Your task to perform on an android device: Open Google Chrome and click the shortcut for Amazon.com Image 0: 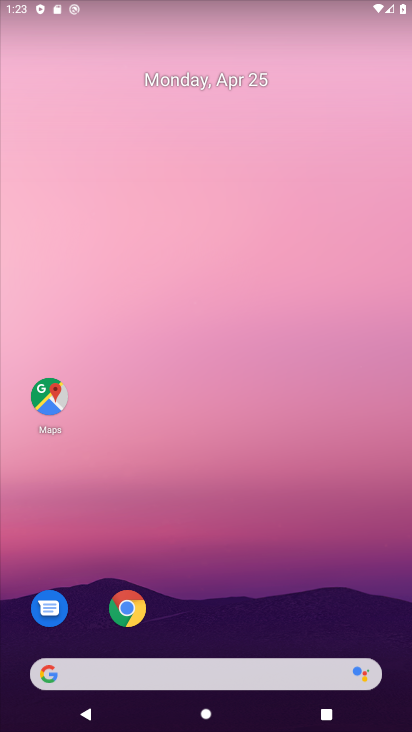
Step 0: drag from (347, 498) to (341, 46)
Your task to perform on an android device: Open Google Chrome and click the shortcut for Amazon.com Image 1: 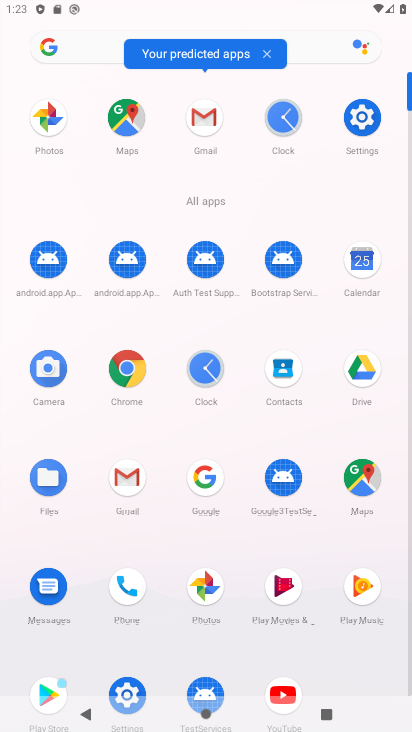
Step 1: click (140, 383)
Your task to perform on an android device: Open Google Chrome and click the shortcut for Amazon.com Image 2: 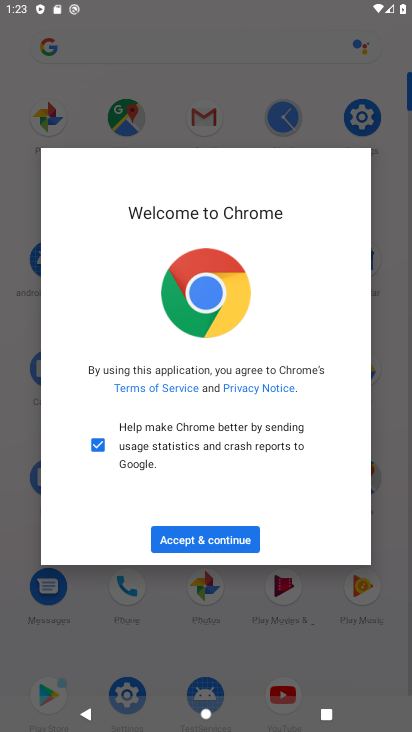
Step 2: click (197, 544)
Your task to perform on an android device: Open Google Chrome and click the shortcut for Amazon.com Image 3: 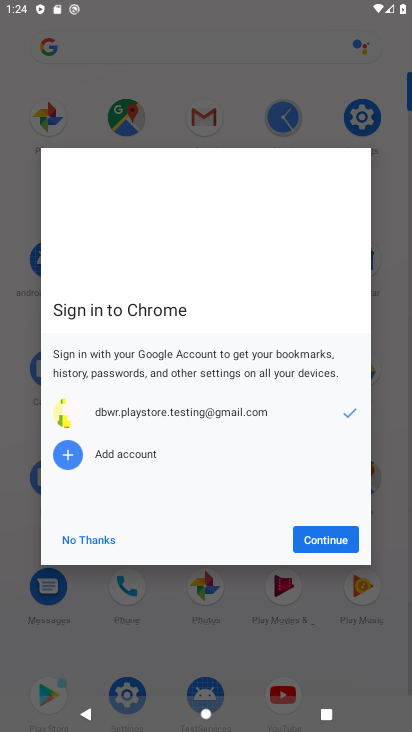
Step 3: click (323, 534)
Your task to perform on an android device: Open Google Chrome and click the shortcut for Amazon.com Image 4: 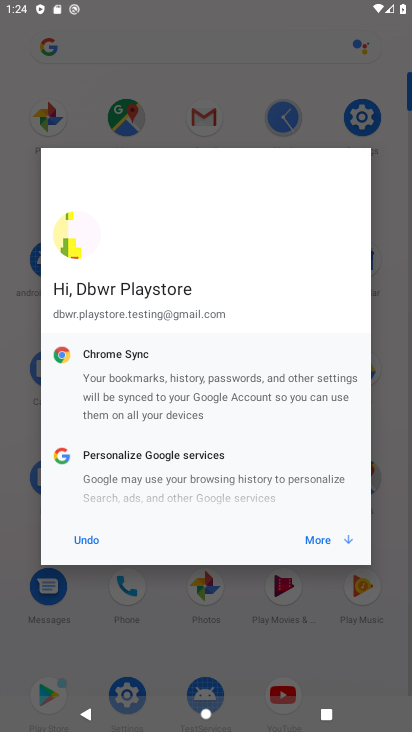
Step 4: click (315, 535)
Your task to perform on an android device: Open Google Chrome and click the shortcut for Amazon.com Image 5: 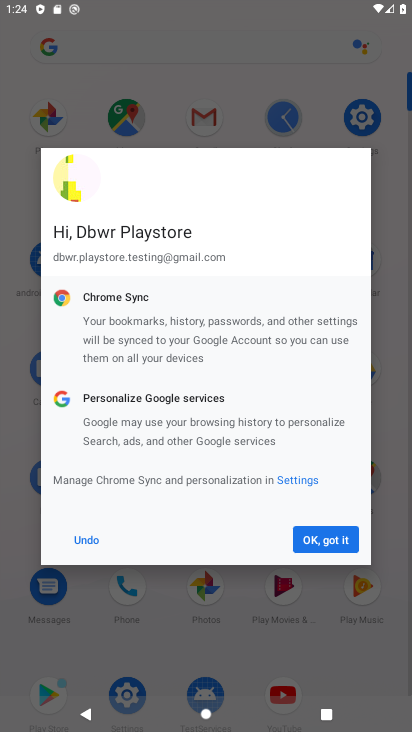
Step 5: click (315, 535)
Your task to perform on an android device: Open Google Chrome and click the shortcut for Amazon.com Image 6: 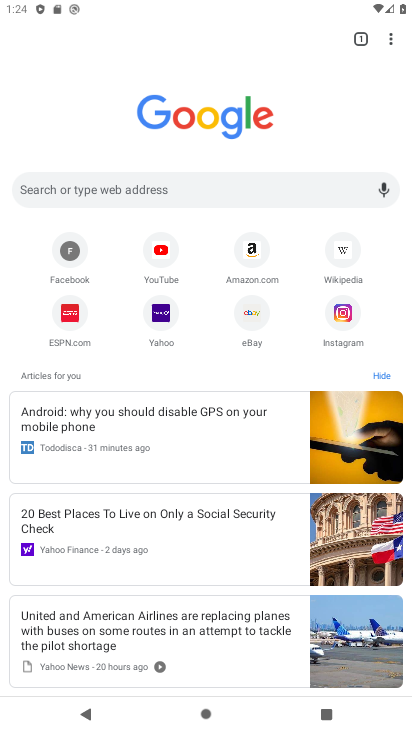
Step 6: click (262, 263)
Your task to perform on an android device: Open Google Chrome and click the shortcut for Amazon.com Image 7: 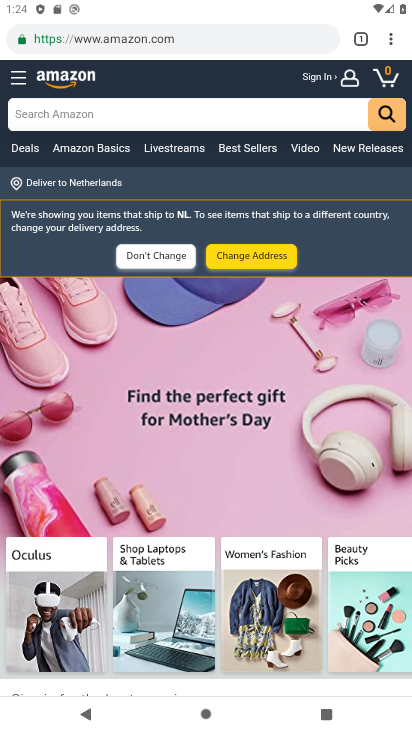
Step 7: task complete